Your task to perform on an android device: delete browsing data in the chrome app Image 0: 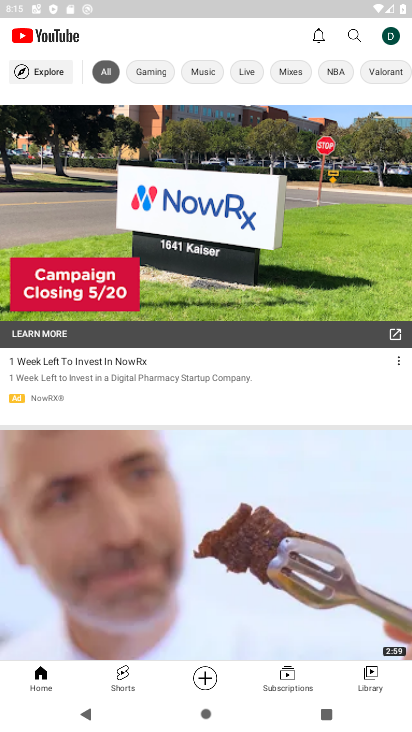
Step 0: press home button
Your task to perform on an android device: delete browsing data in the chrome app Image 1: 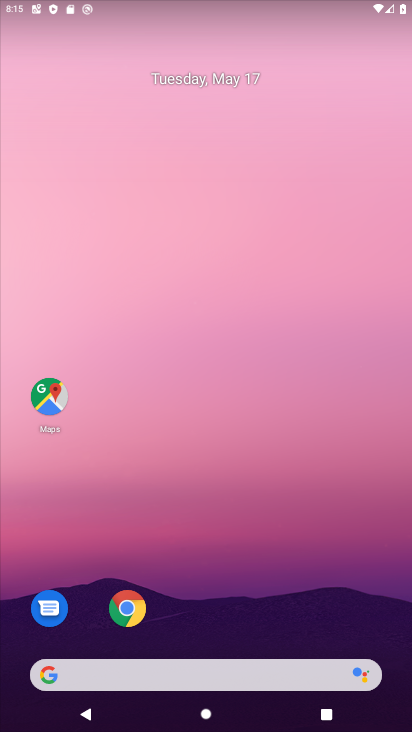
Step 1: click (126, 607)
Your task to perform on an android device: delete browsing data in the chrome app Image 2: 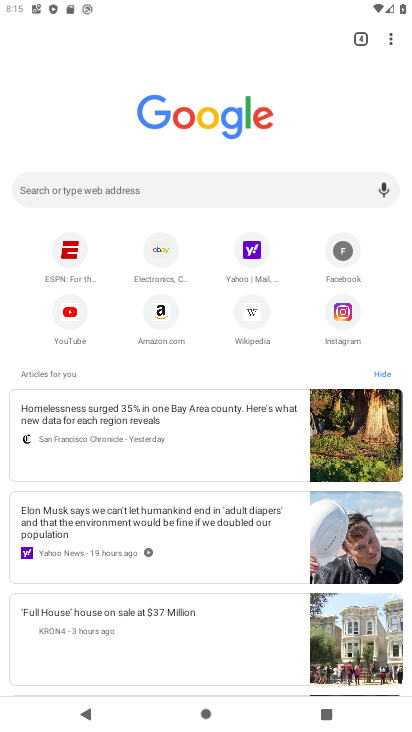
Step 2: click (398, 33)
Your task to perform on an android device: delete browsing data in the chrome app Image 3: 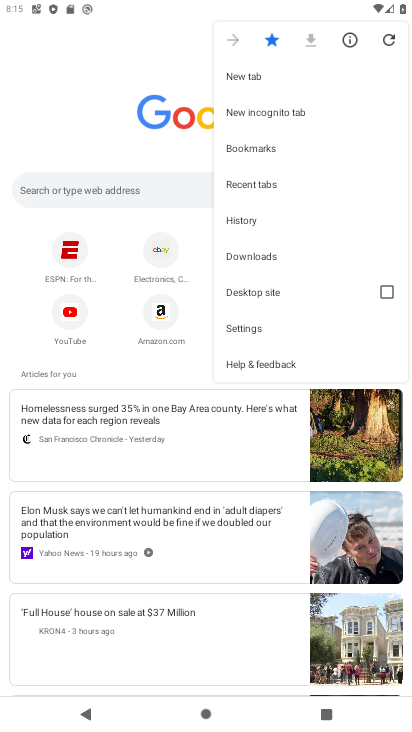
Step 3: click (262, 226)
Your task to perform on an android device: delete browsing data in the chrome app Image 4: 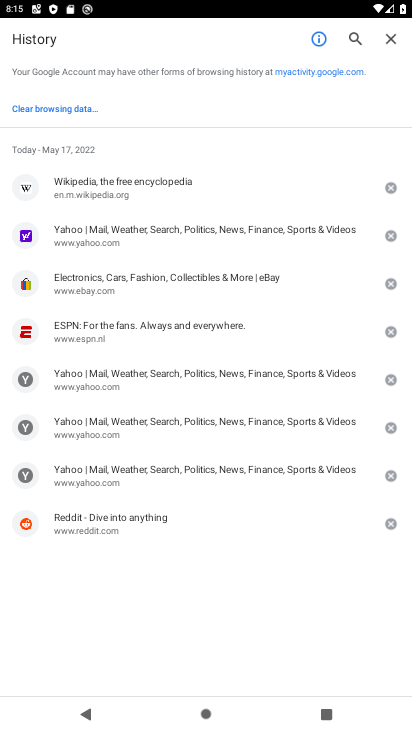
Step 4: click (69, 116)
Your task to perform on an android device: delete browsing data in the chrome app Image 5: 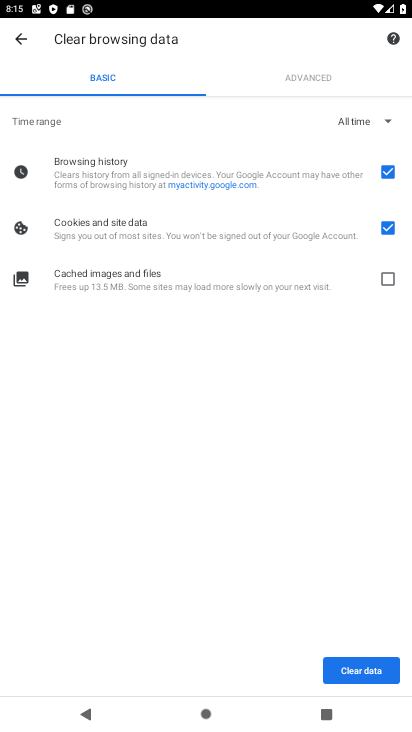
Step 5: click (390, 231)
Your task to perform on an android device: delete browsing data in the chrome app Image 6: 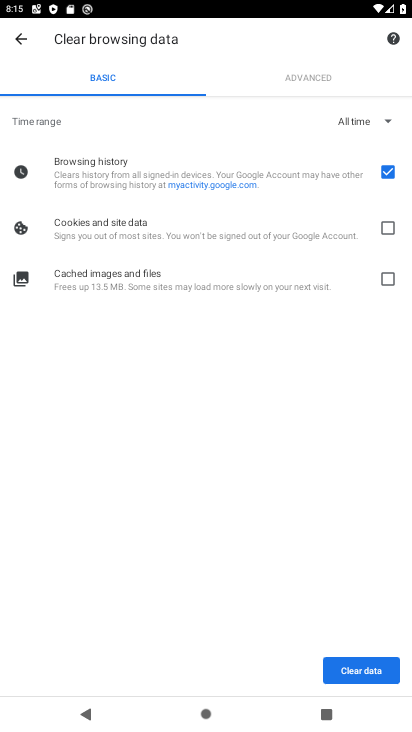
Step 6: click (377, 662)
Your task to perform on an android device: delete browsing data in the chrome app Image 7: 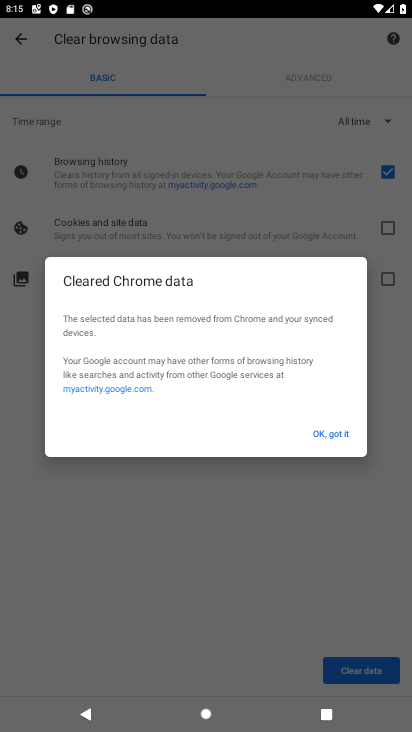
Step 7: click (334, 432)
Your task to perform on an android device: delete browsing data in the chrome app Image 8: 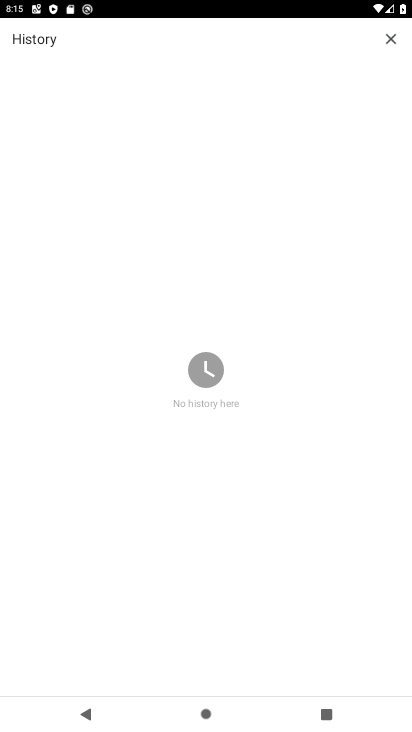
Step 8: task complete